Your task to perform on an android device: Check the weather Image 0: 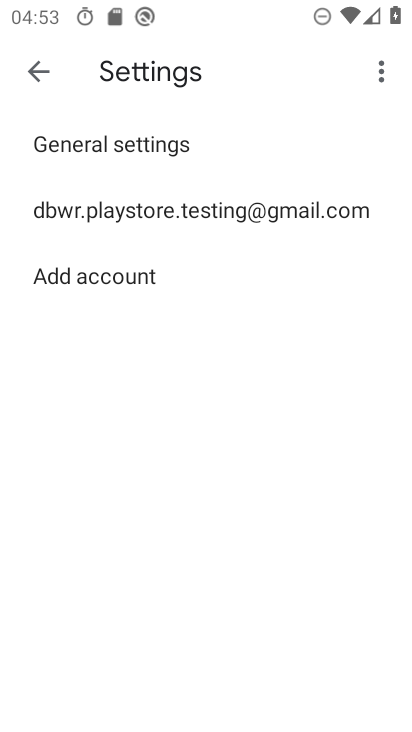
Step 0: press home button
Your task to perform on an android device: Check the weather Image 1: 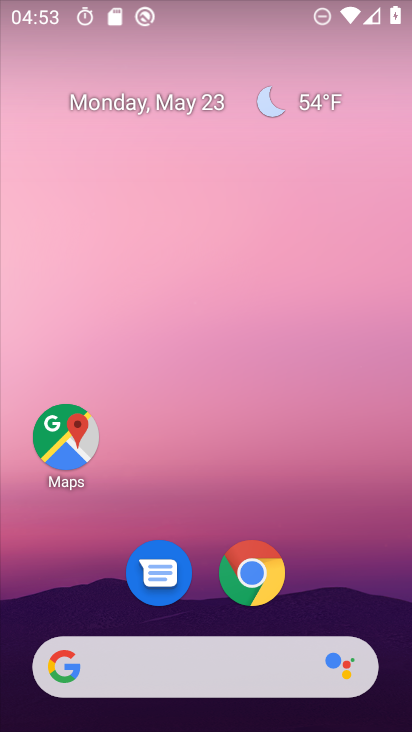
Step 1: click (323, 110)
Your task to perform on an android device: Check the weather Image 2: 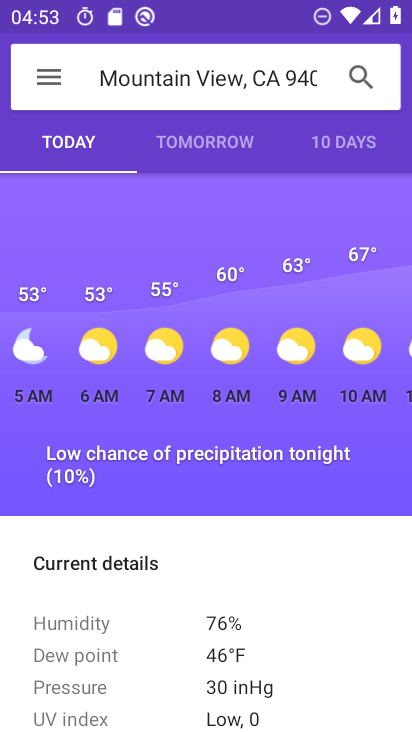
Step 2: task complete